Your task to perform on an android device: Open privacy settings Image 0: 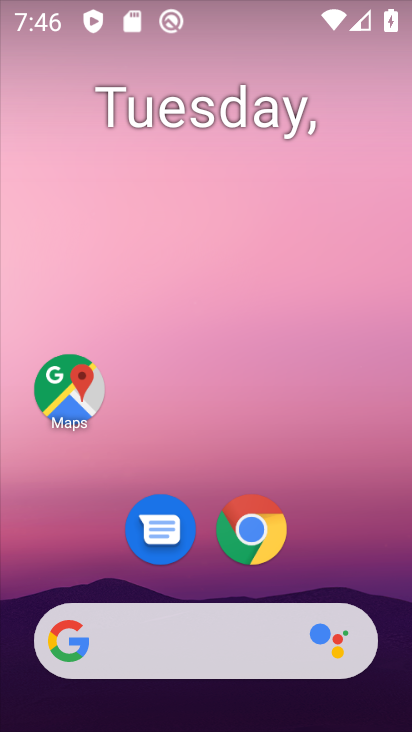
Step 0: drag from (172, 643) to (345, 124)
Your task to perform on an android device: Open privacy settings Image 1: 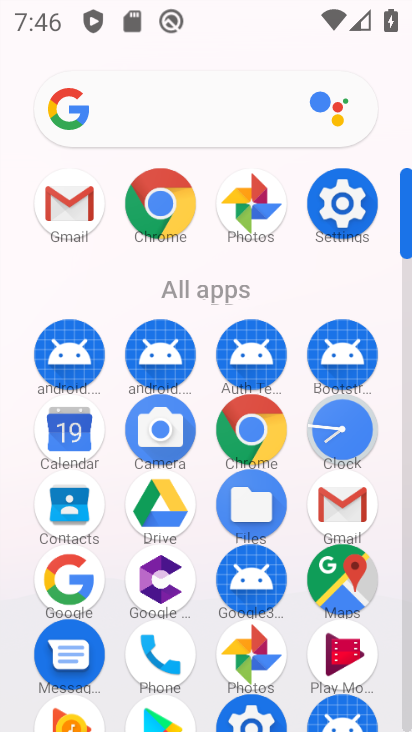
Step 1: click (350, 216)
Your task to perform on an android device: Open privacy settings Image 2: 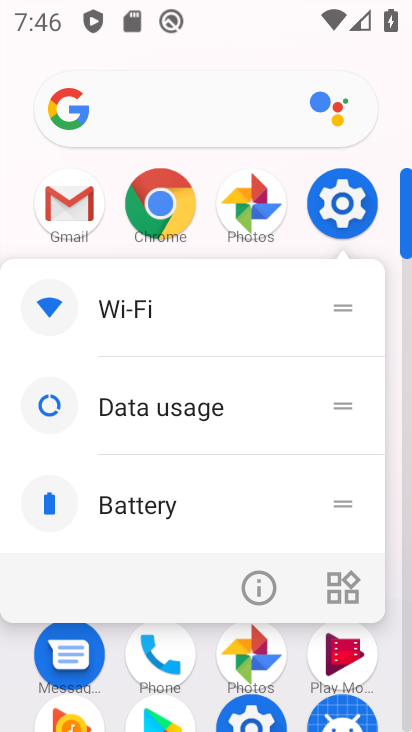
Step 2: click (344, 206)
Your task to perform on an android device: Open privacy settings Image 3: 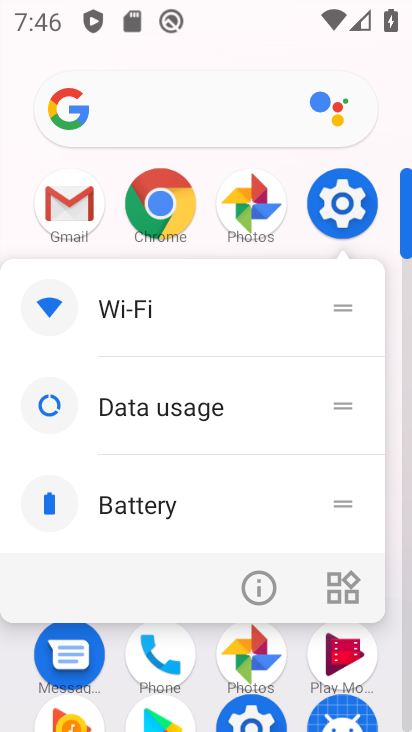
Step 3: click (344, 202)
Your task to perform on an android device: Open privacy settings Image 4: 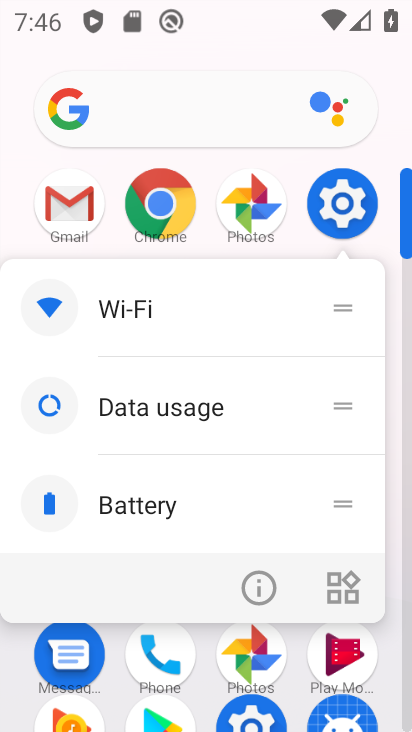
Step 4: click (340, 206)
Your task to perform on an android device: Open privacy settings Image 5: 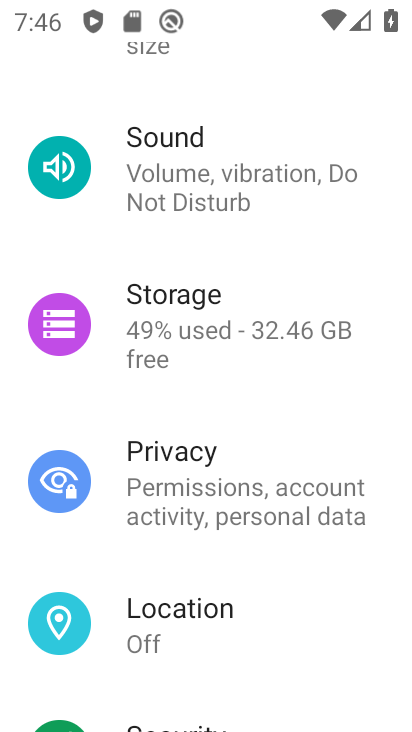
Step 5: drag from (307, 131) to (301, 564)
Your task to perform on an android device: Open privacy settings Image 6: 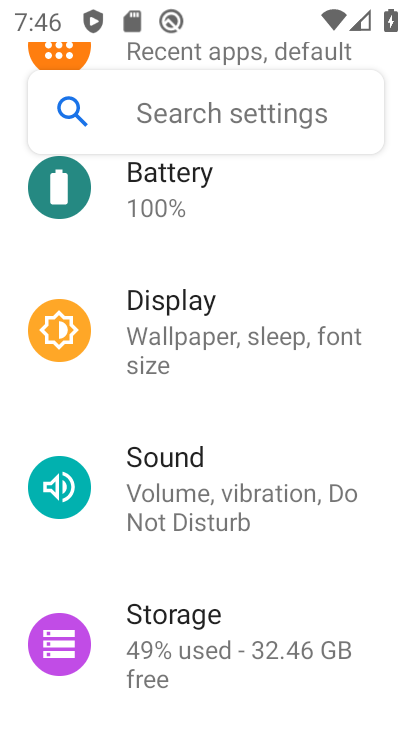
Step 6: drag from (269, 598) to (352, 239)
Your task to perform on an android device: Open privacy settings Image 7: 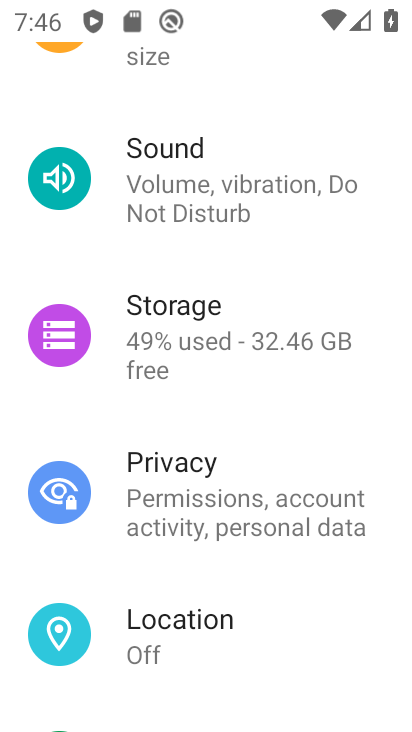
Step 7: click (195, 483)
Your task to perform on an android device: Open privacy settings Image 8: 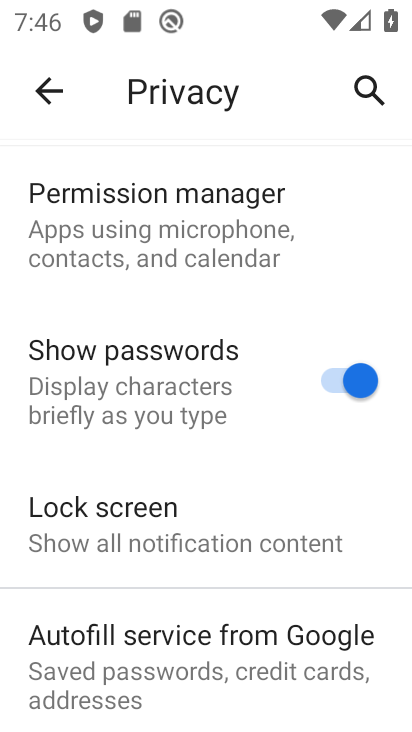
Step 8: task complete